Your task to perform on an android device: Open the calendar app, open the side menu, and click the "Day" option Image 0: 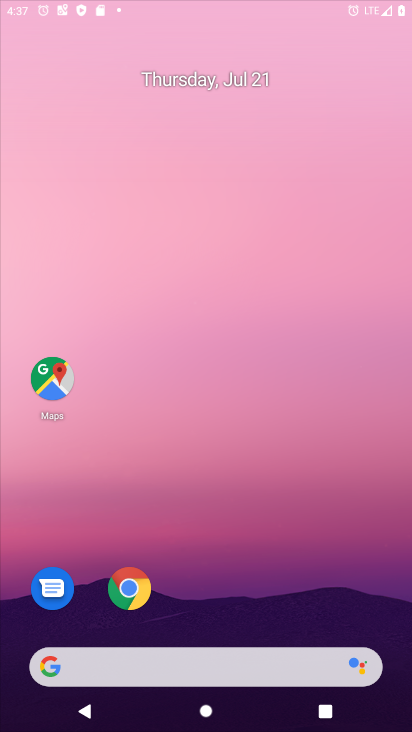
Step 0: drag from (270, 516) to (288, 83)
Your task to perform on an android device: Open the calendar app, open the side menu, and click the "Day" option Image 1: 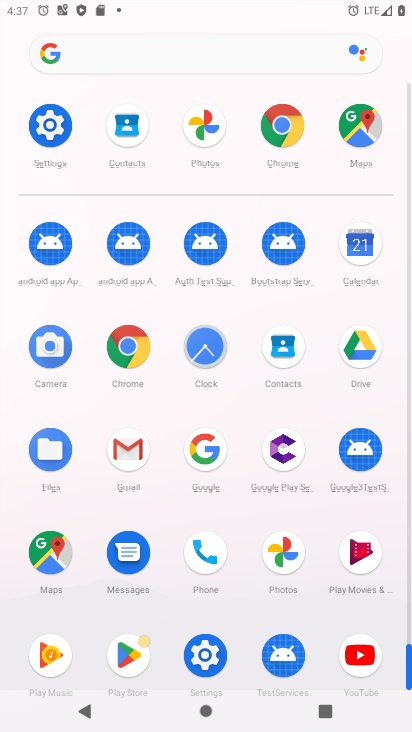
Step 1: click (124, 350)
Your task to perform on an android device: Open the calendar app, open the side menu, and click the "Day" option Image 2: 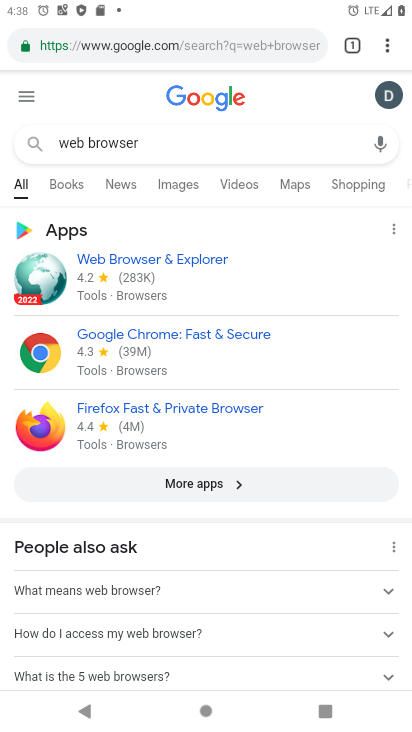
Step 2: click (148, 52)
Your task to perform on an android device: Open the calendar app, open the side menu, and click the "Day" option Image 3: 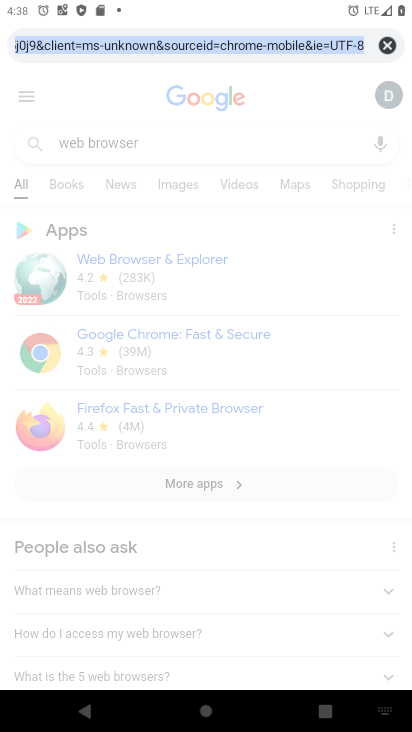
Step 3: click (384, 35)
Your task to perform on an android device: Open the calendar app, open the side menu, and click the "Day" option Image 4: 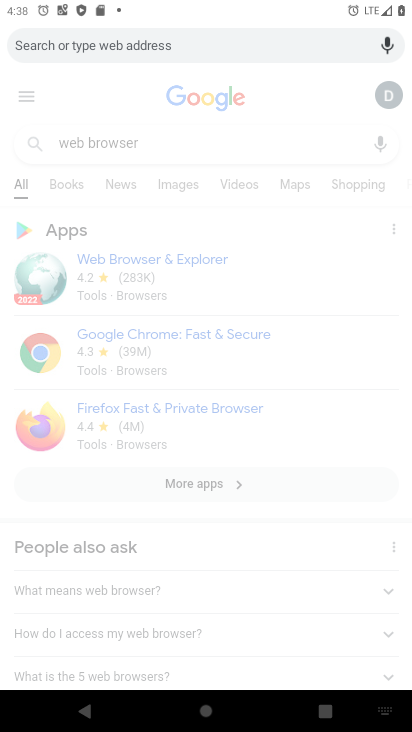
Step 4: press home button
Your task to perform on an android device: Open the calendar app, open the side menu, and click the "Day" option Image 5: 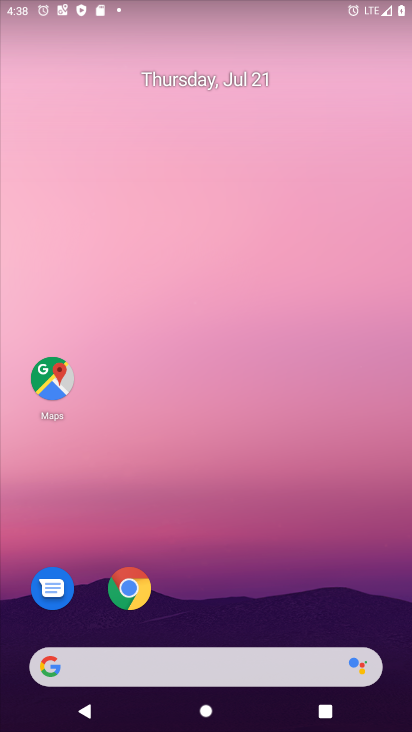
Step 5: drag from (189, 593) to (247, 99)
Your task to perform on an android device: Open the calendar app, open the side menu, and click the "Day" option Image 6: 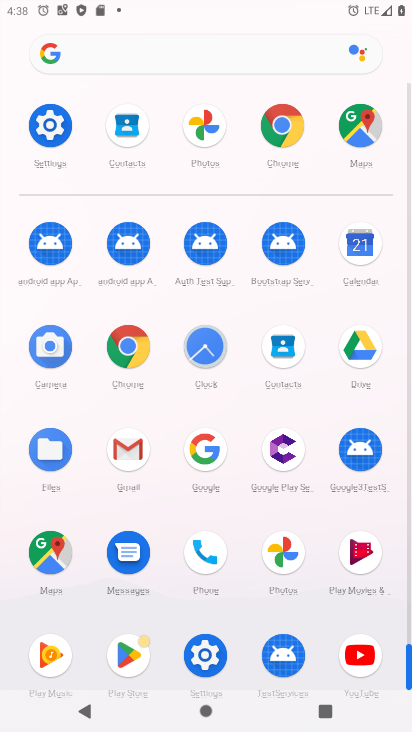
Step 6: drag from (173, 345) to (193, 81)
Your task to perform on an android device: Open the calendar app, open the side menu, and click the "Day" option Image 7: 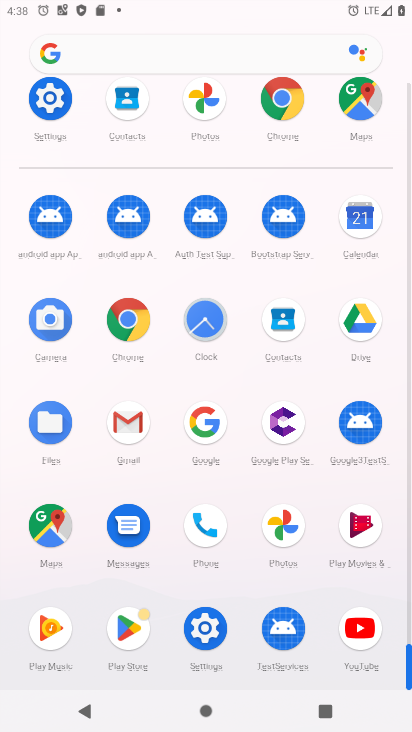
Step 7: click (365, 227)
Your task to perform on an android device: Open the calendar app, open the side menu, and click the "Day" option Image 8: 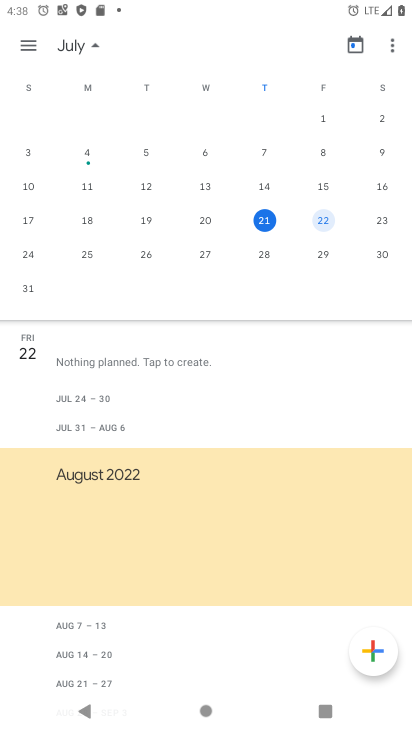
Step 8: click (21, 44)
Your task to perform on an android device: Open the calendar app, open the side menu, and click the "Day" option Image 9: 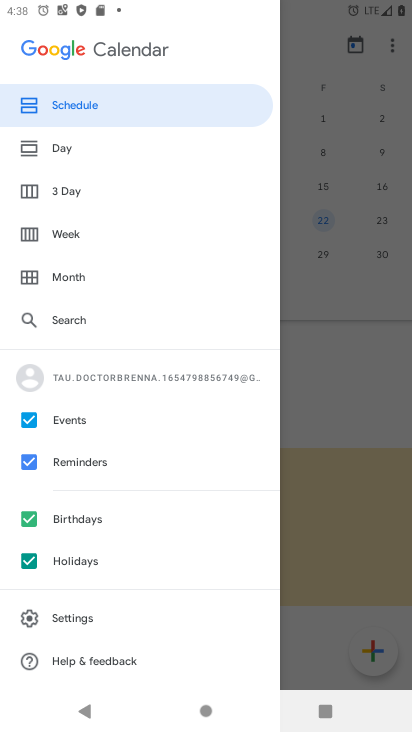
Step 9: click (55, 143)
Your task to perform on an android device: Open the calendar app, open the side menu, and click the "Day" option Image 10: 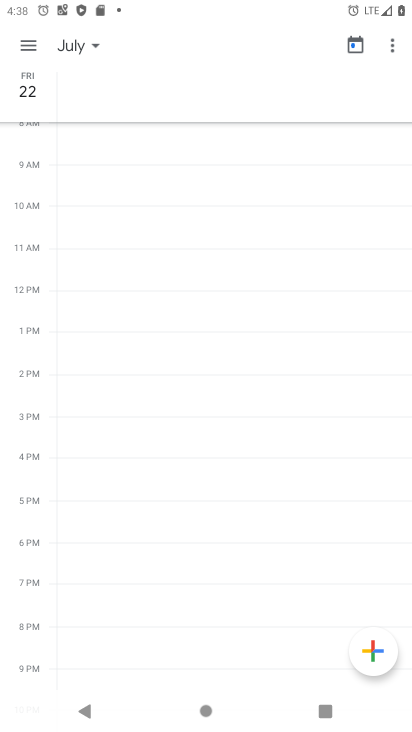
Step 10: task complete